Your task to perform on an android device: Open Google Image 0: 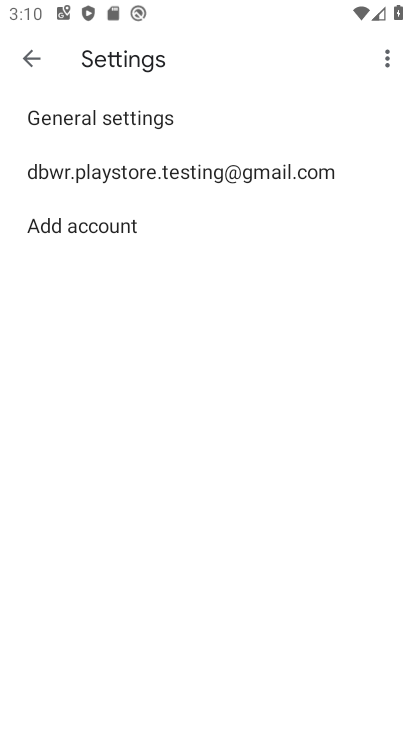
Step 0: press home button
Your task to perform on an android device: Open Google Image 1: 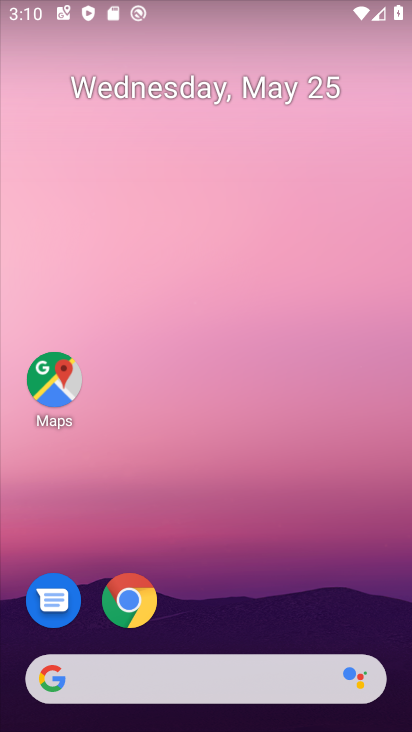
Step 1: click (51, 673)
Your task to perform on an android device: Open Google Image 2: 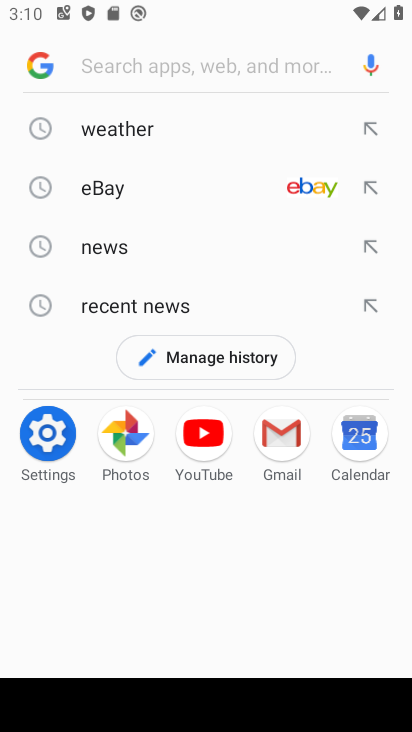
Step 2: click (32, 65)
Your task to perform on an android device: Open Google Image 3: 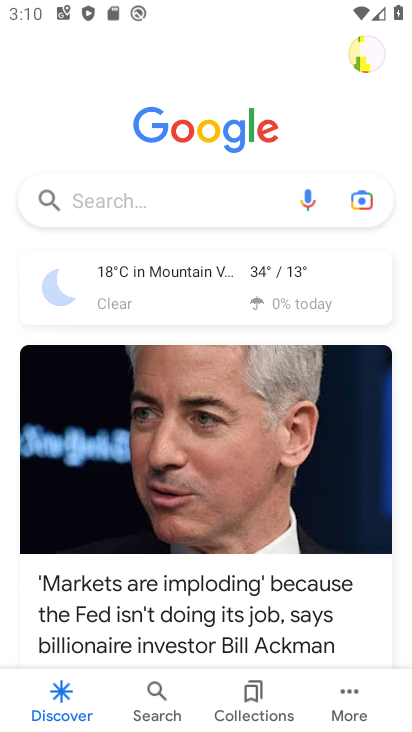
Step 3: task complete